Your task to perform on an android device: See recent photos Image 0: 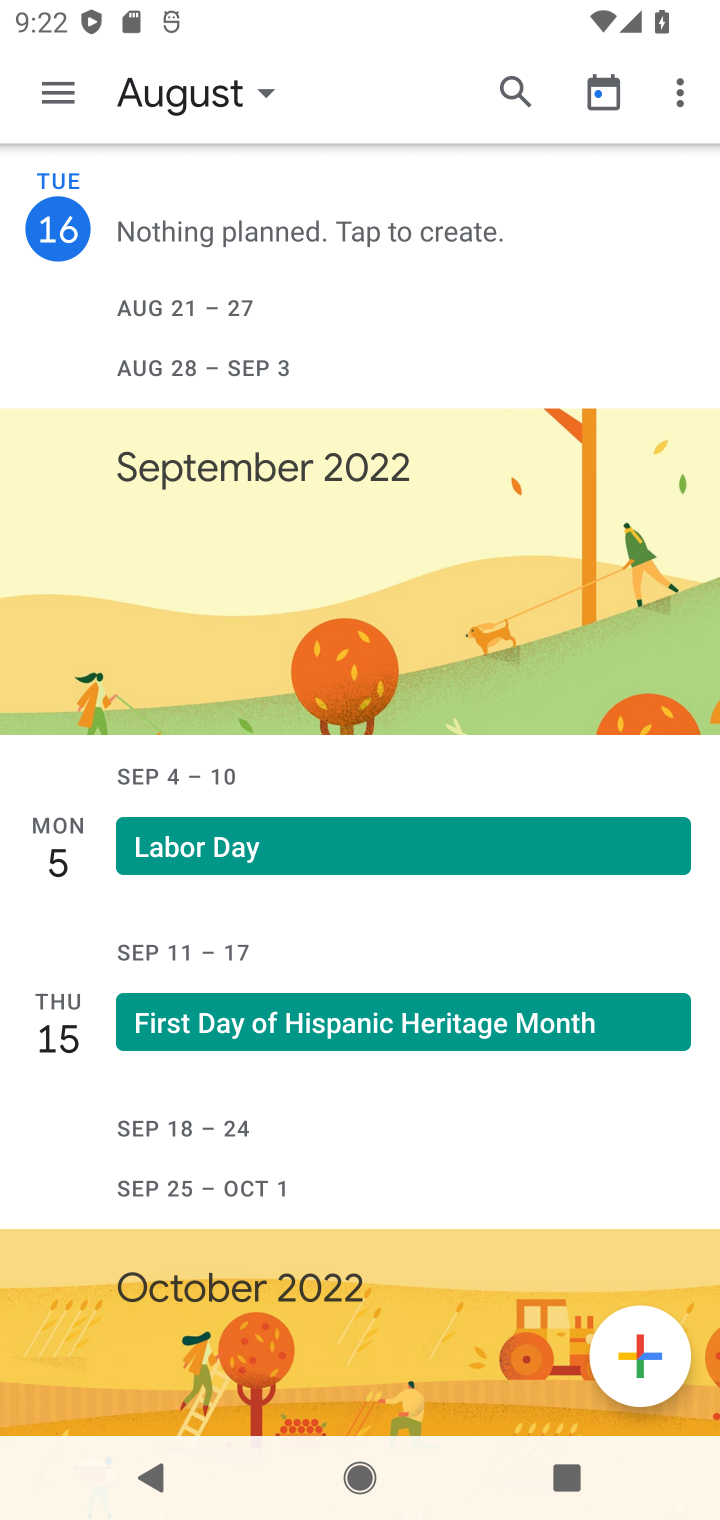
Step 0: press home button
Your task to perform on an android device: See recent photos Image 1: 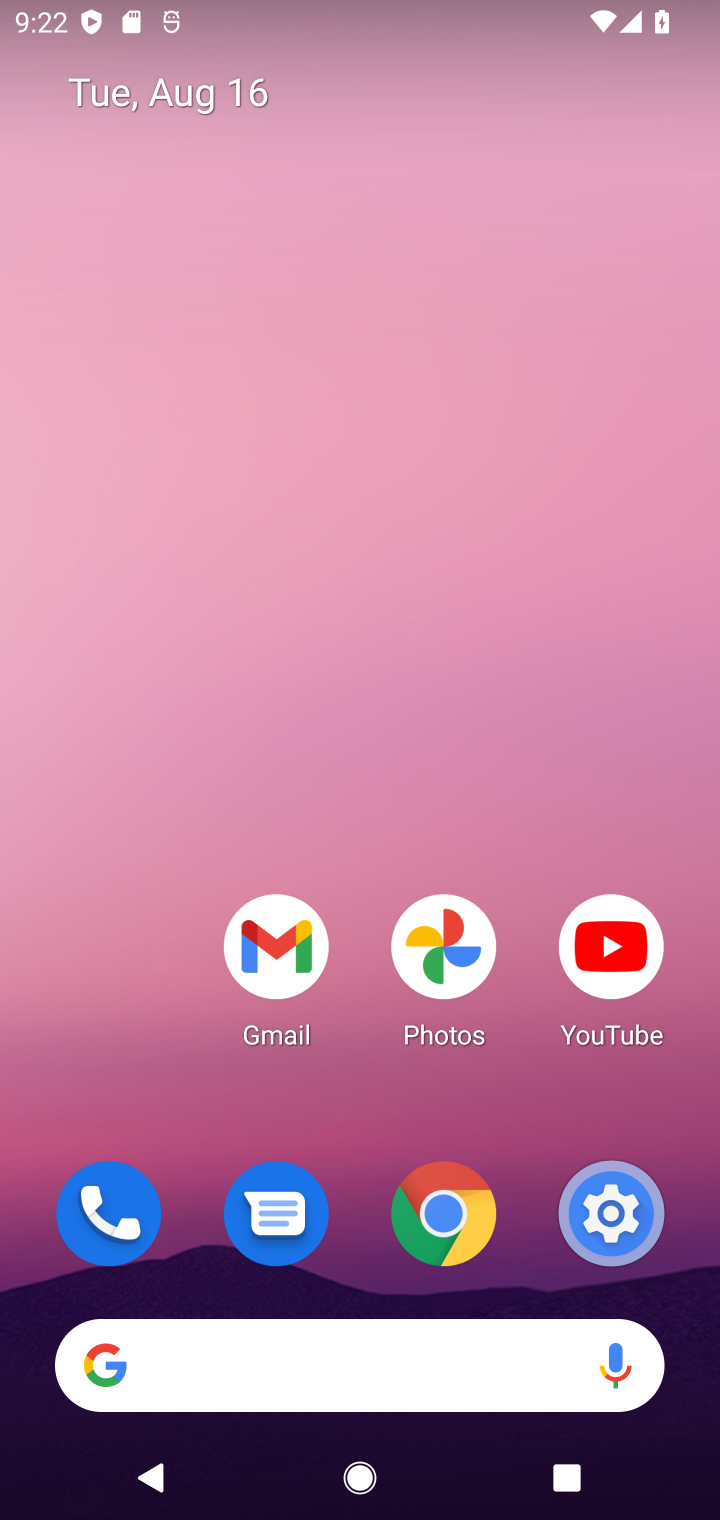
Step 1: drag from (320, 1330) to (368, 314)
Your task to perform on an android device: See recent photos Image 2: 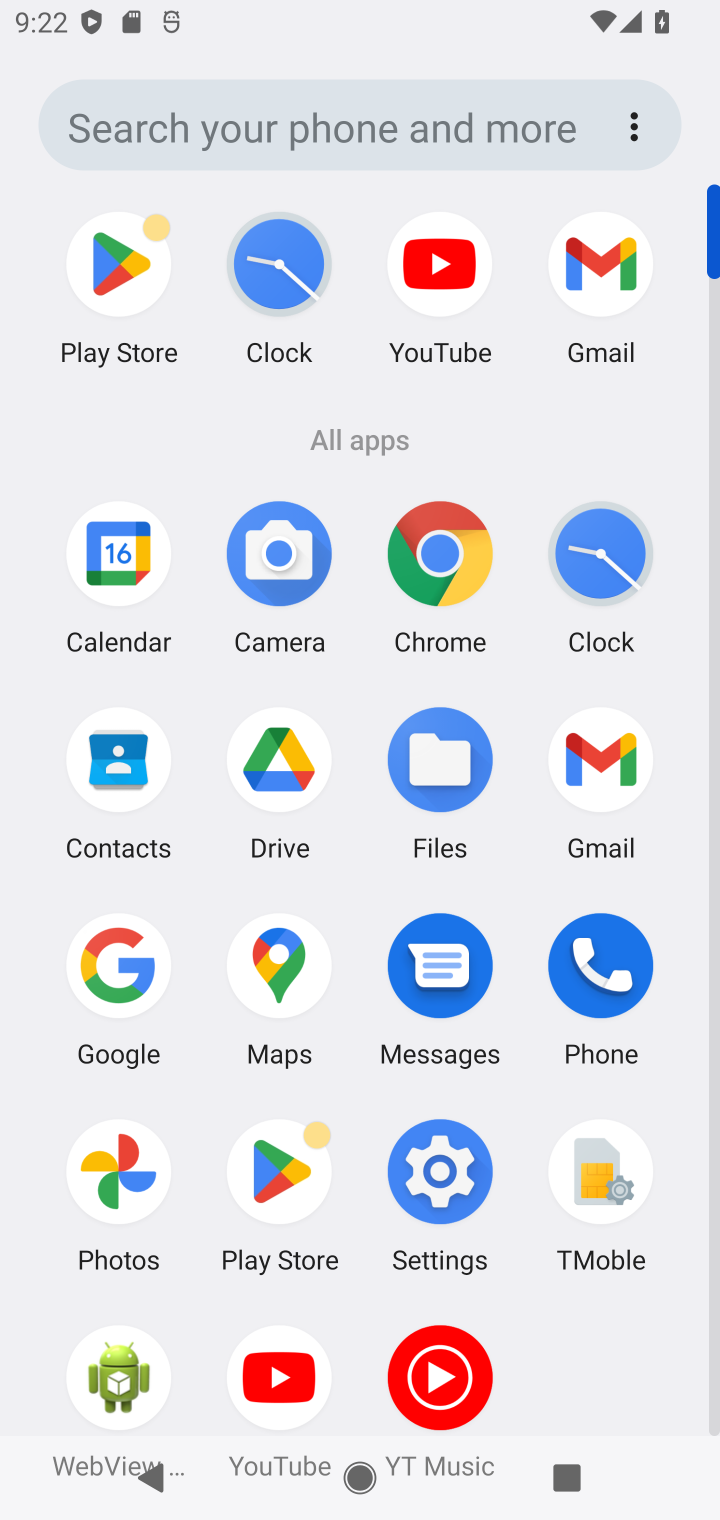
Step 2: click (111, 1155)
Your task to perform on an android device: See recent photos Image 3: 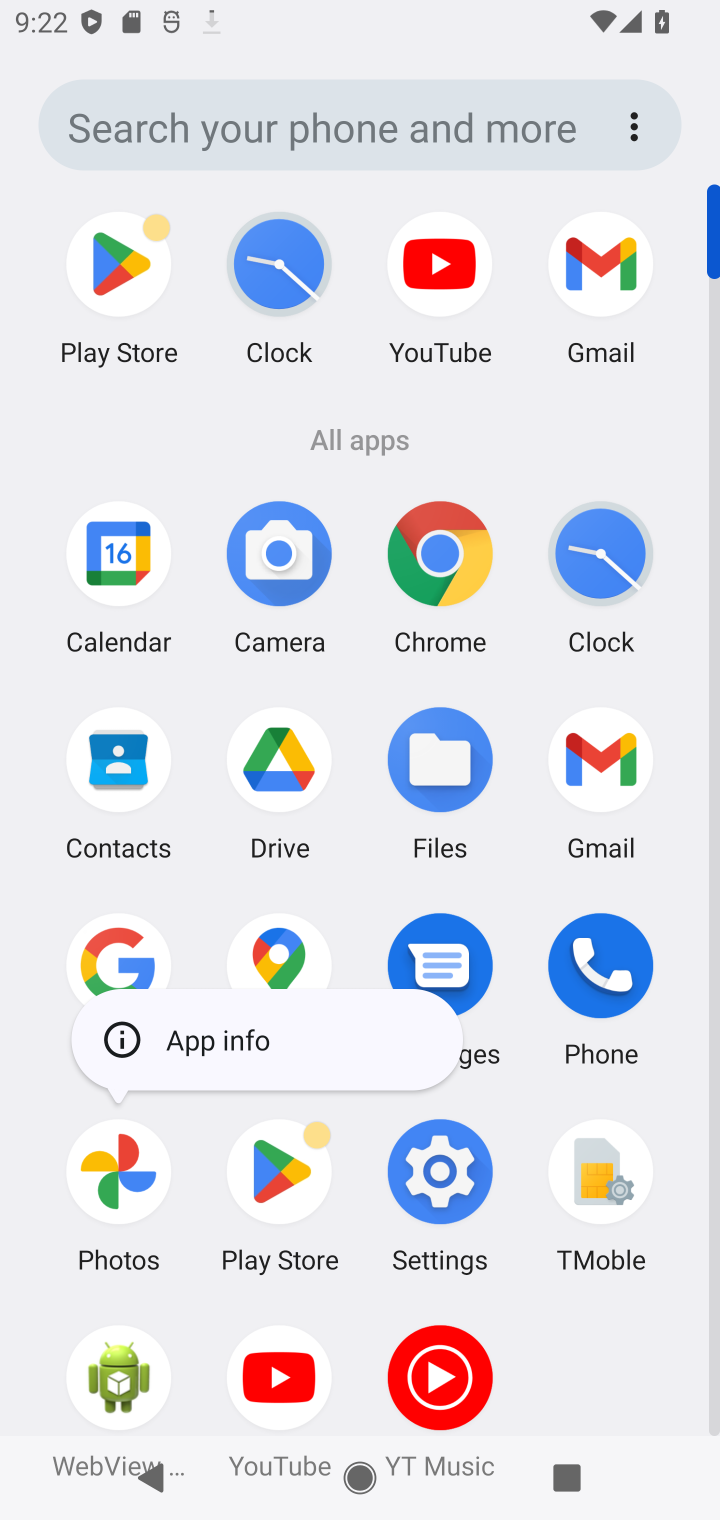
Step 3: click (96, 1164)
Your task to perform on an android device: See recent photos Image 4: 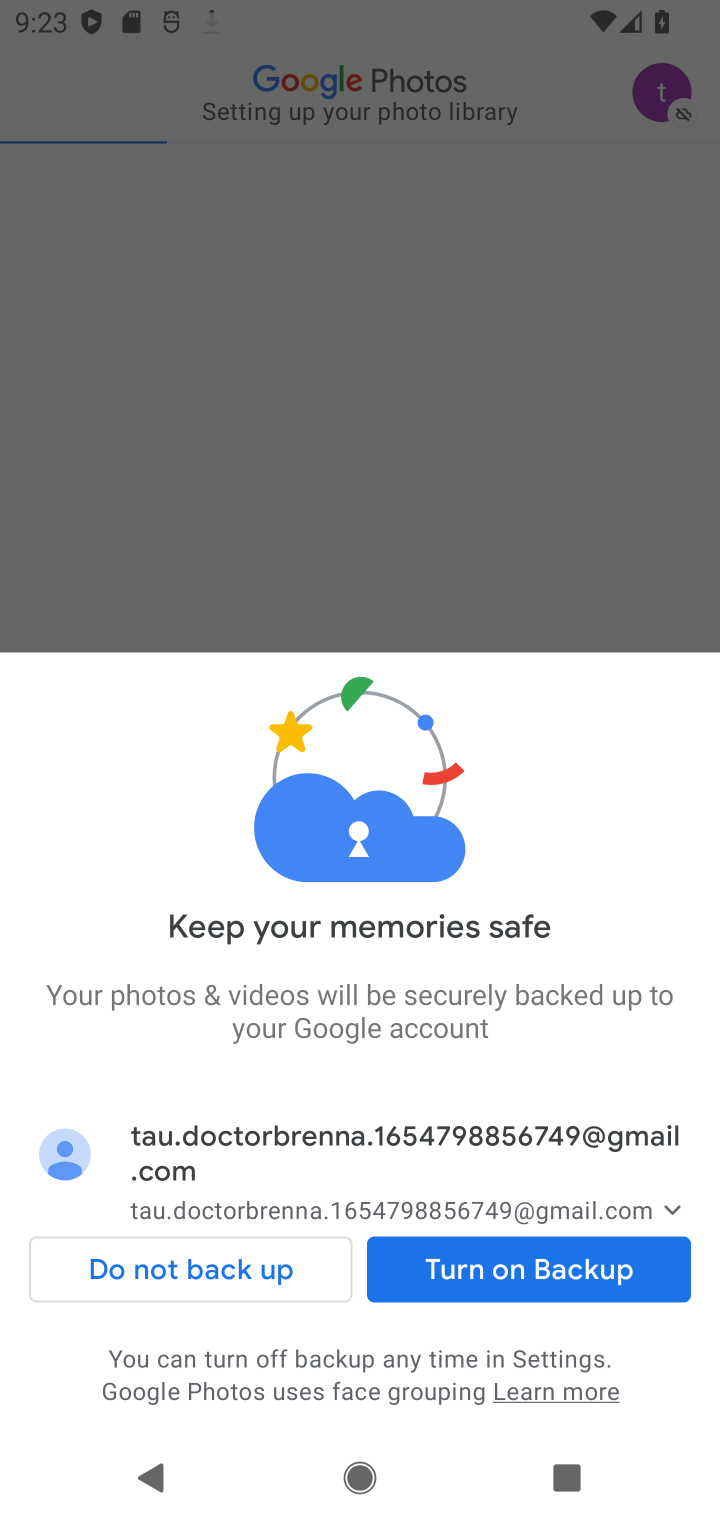
Step 4: click (578, 1254)
Your task to perform on an android device: See recent photos Image 5: 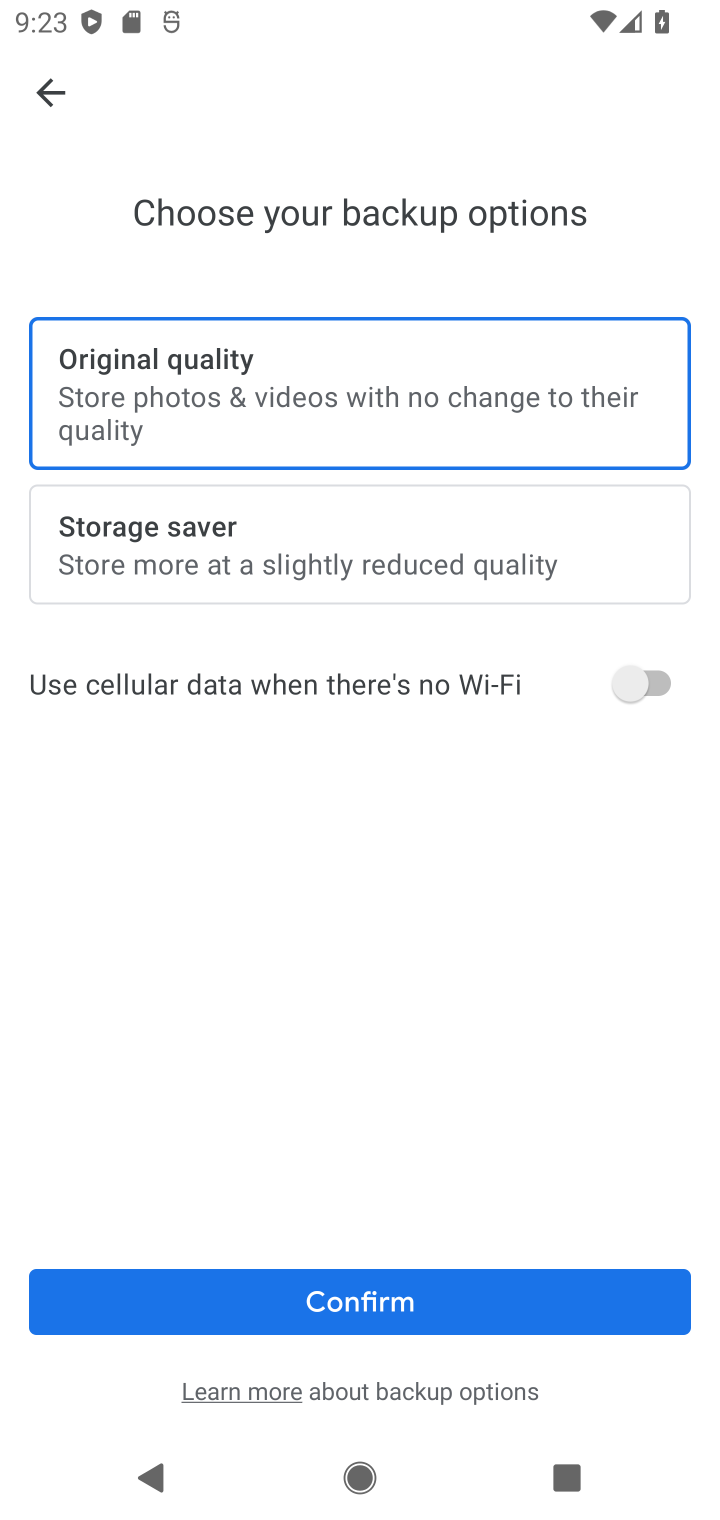
Step 5: click (325, 1319)
Your task to perform on an android device: See recent photos Image 6: 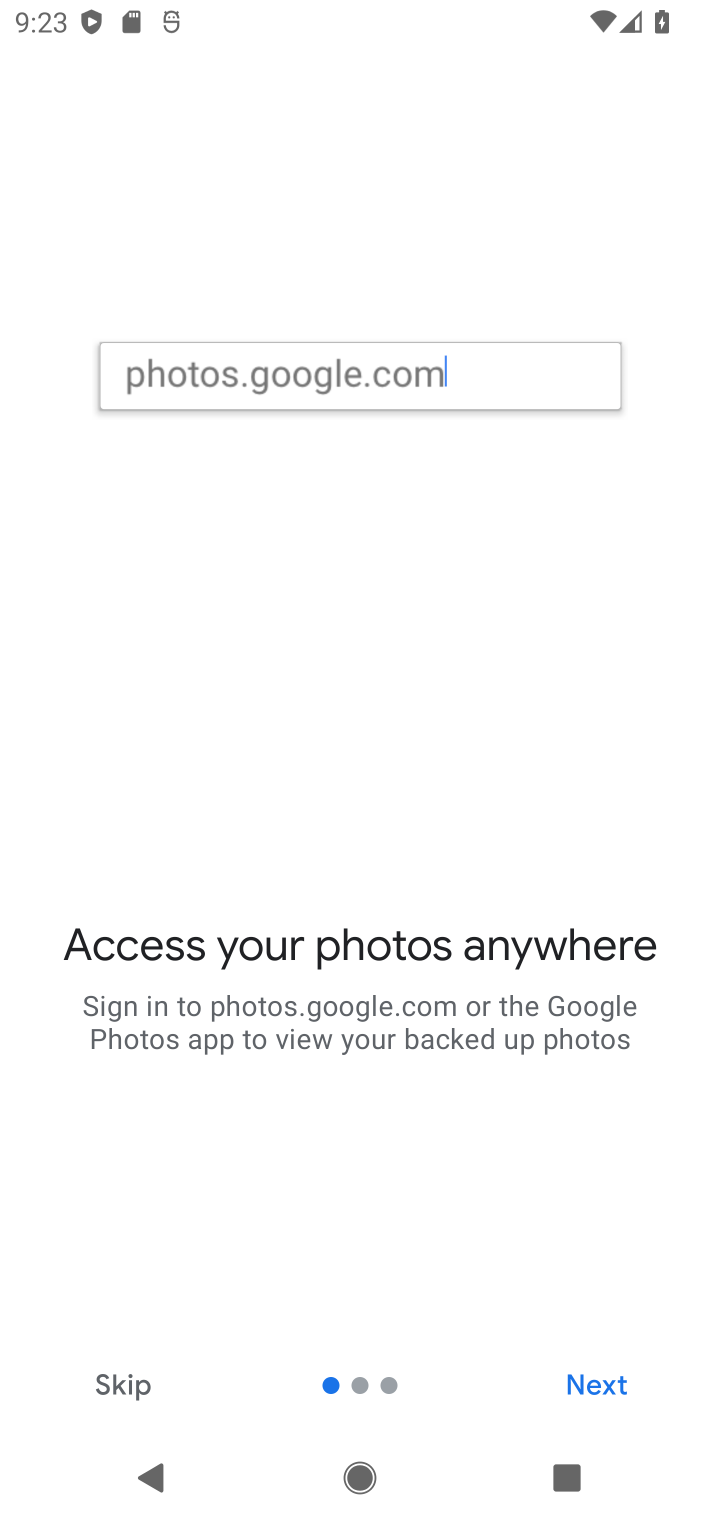
Step 6: click (578, 1362)
Your task to perform on an android device: See recent photos Image 7: 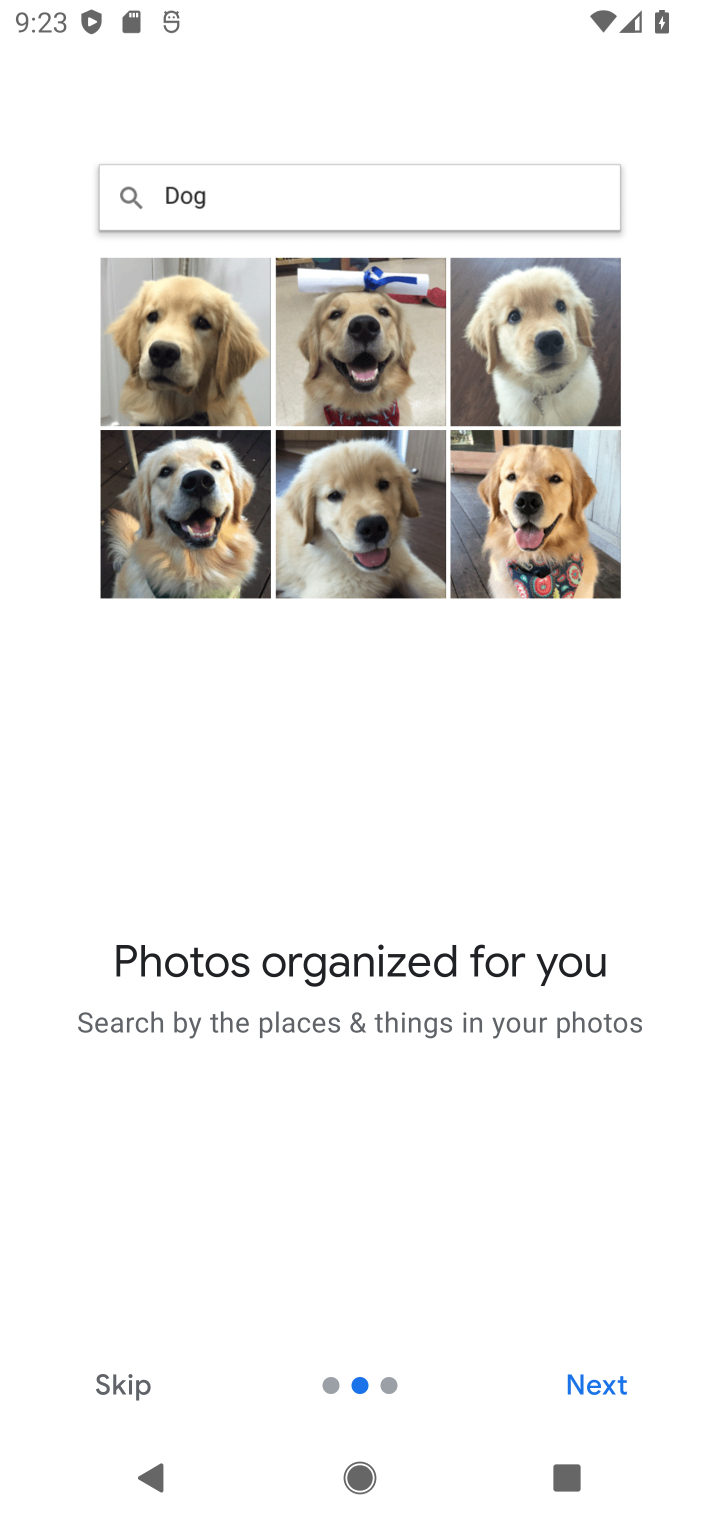
Step 7: click (579, 1353)
Your task to perform on an android device: See recent photos Image 8: 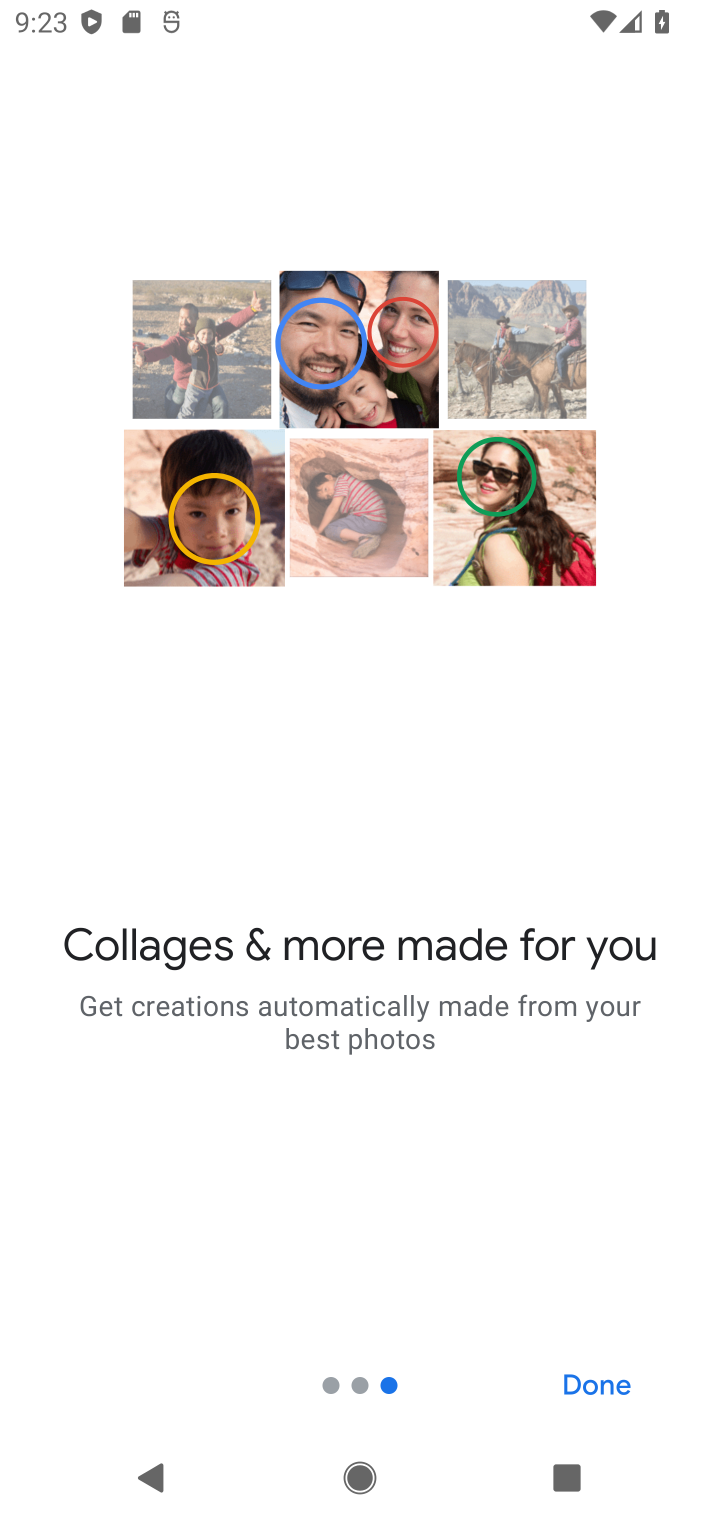
Step 8: click (566, 1367)
Your task to perform on an android device: See recent photos Image 9: 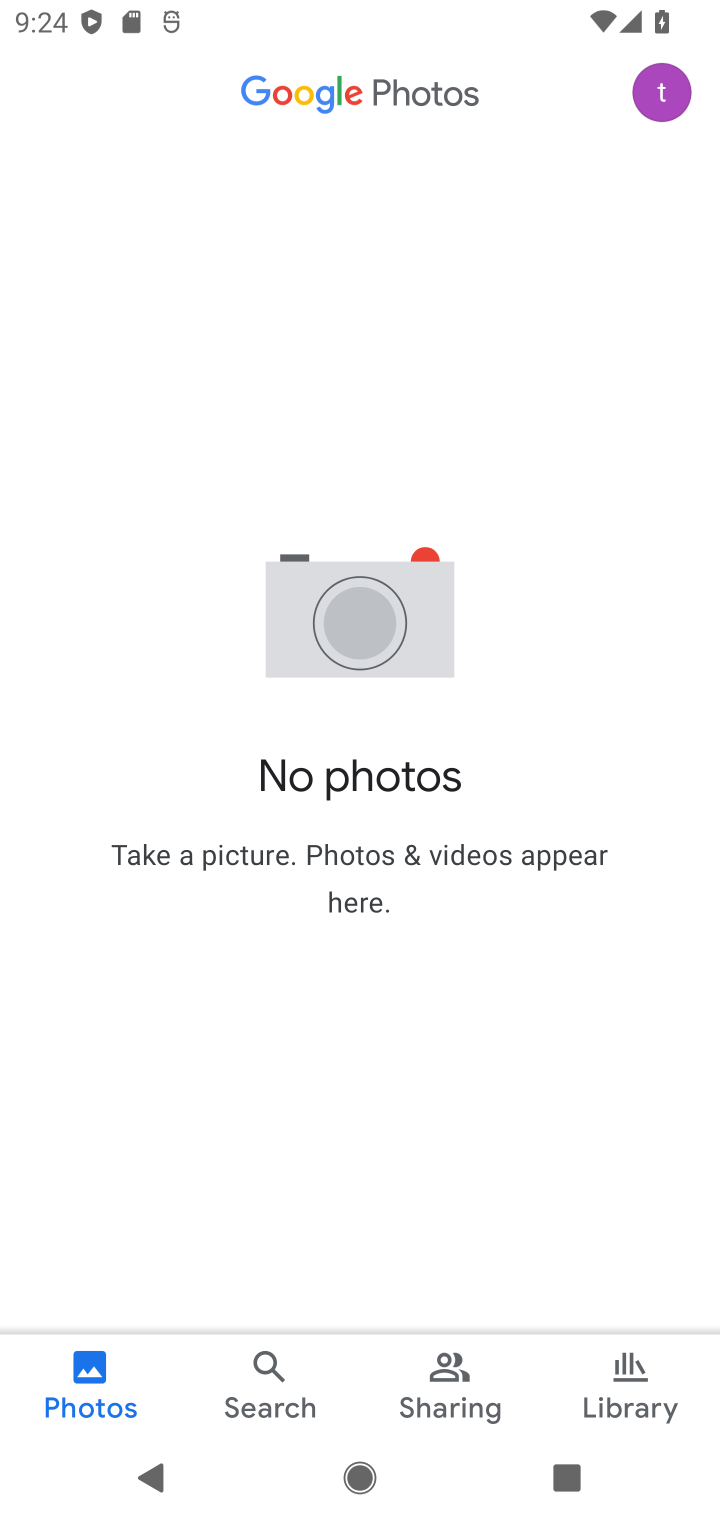
Step 9: task complete